Your task to perform on an android device: change the clock display to show seconds Image 0: 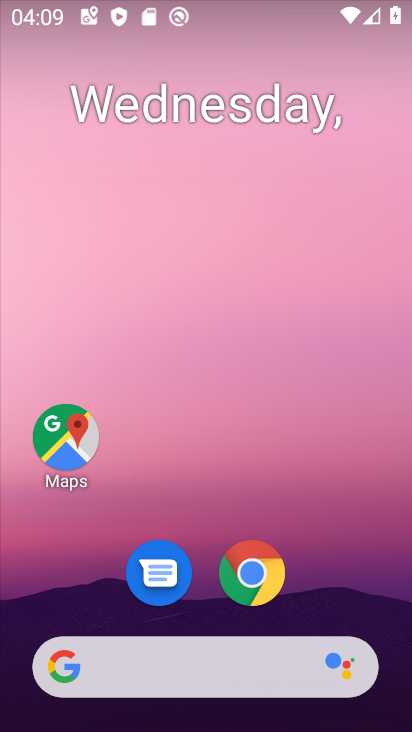
Step 0: drag from (331, 600) to (289, 123)
Your task to perform on an android device: change the clock display to show seconds Image 1: 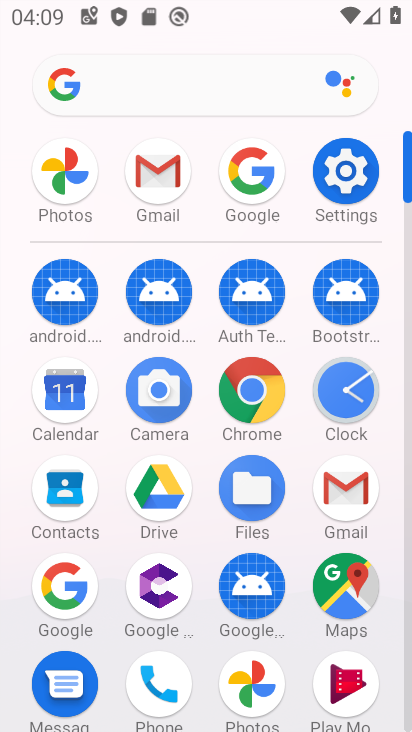
Step 1: click (345, 393)
Your task to perform on an android device: change the clock display to show seconds Image 2: 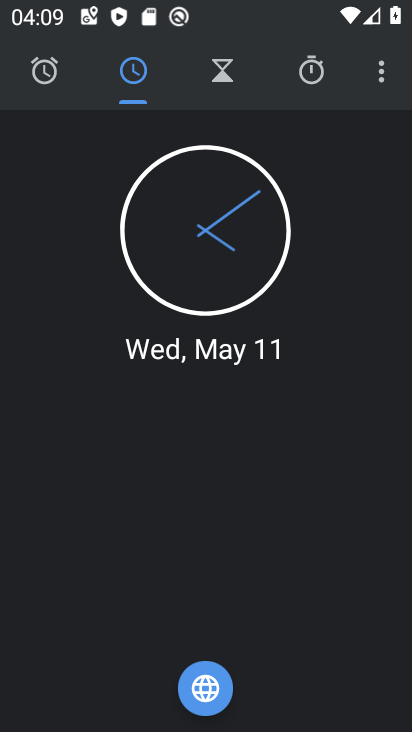
Step 2: click (379, 77)
Your task to perform on an android device: change the clock display to show seconds Image 3: 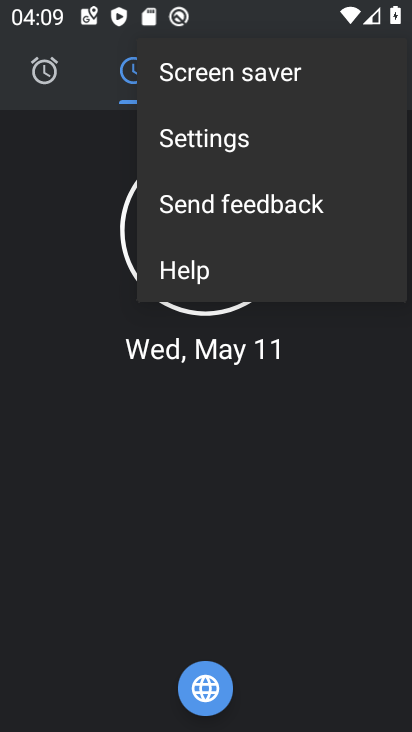
Step 3: click (220, 142)
Your task to perform on an android device: change the clock display to show seconds Image 4: 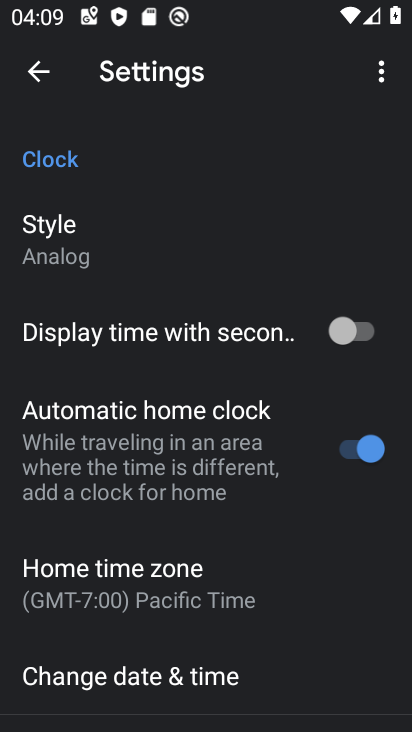
Step 4: click (341, 332)
Your task to perform on an android device: change the clock display to show seconds Image 5: 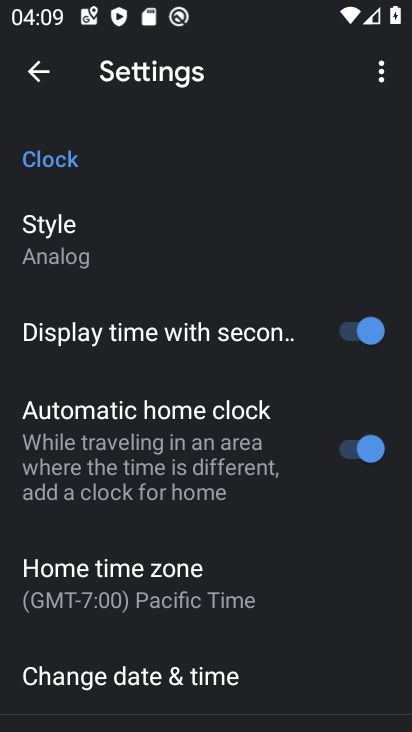
Step 5: task complete